Your task to perform on an android device: Go to Yahoo.com Image 0: 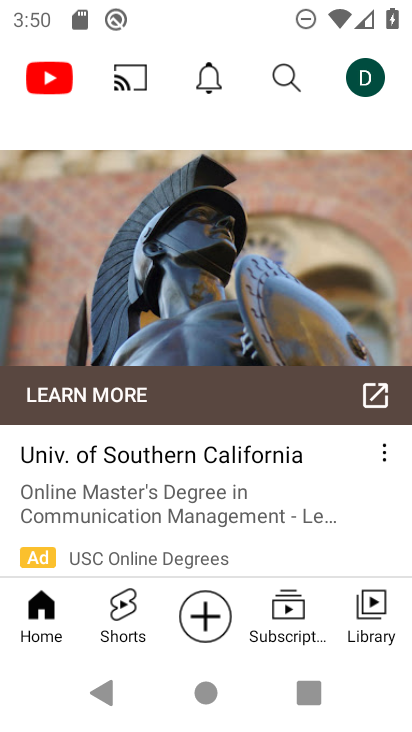
Step 0: press home button
Your task to perform on an android device: Go to Yahoo.com Image 1: 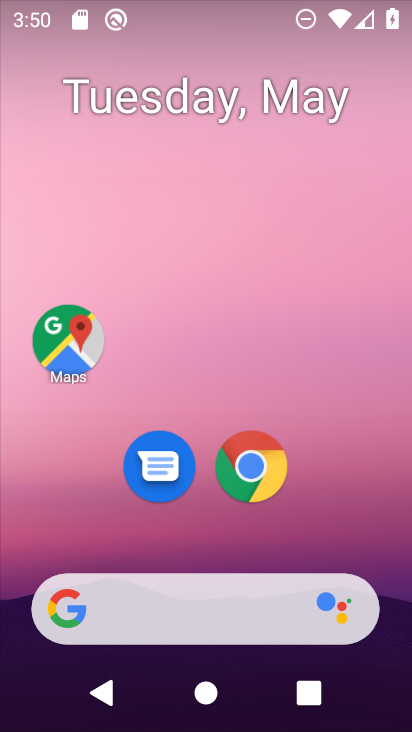
Step 1: drag from (320, 501) to (305, 225)
Your task to perform on an android device: Go to Yahoo.com Image 2: 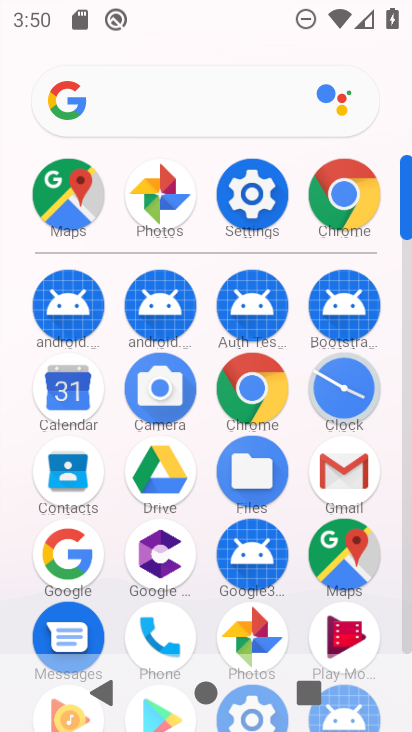
Step 2: click (343, 187)
Your task to perform on an android device: Go to Yahoo.com Image 3: 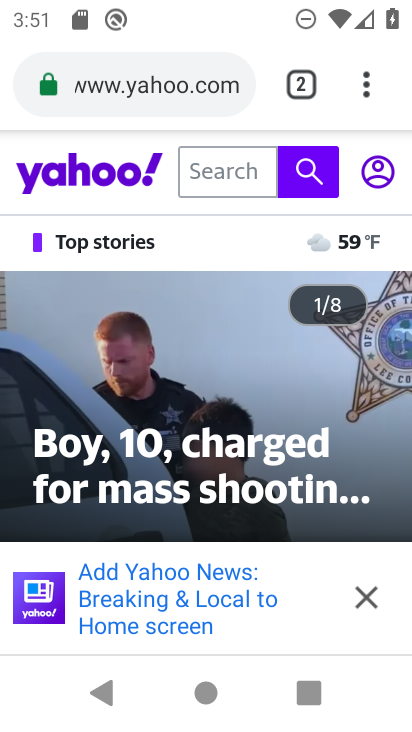
Step 3: task complete